Your task to perform on an android device: see sites visited before in the chrome app Image 0: 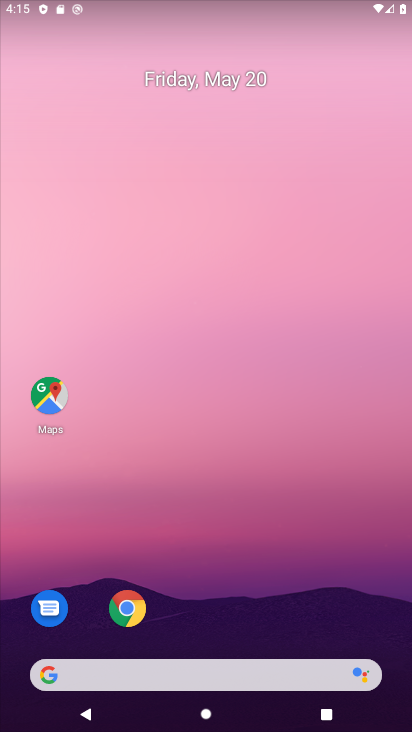
Step 0: click (126, 612)
Your task to perform on an android device: see sites visited before in the chrome app Image 1: 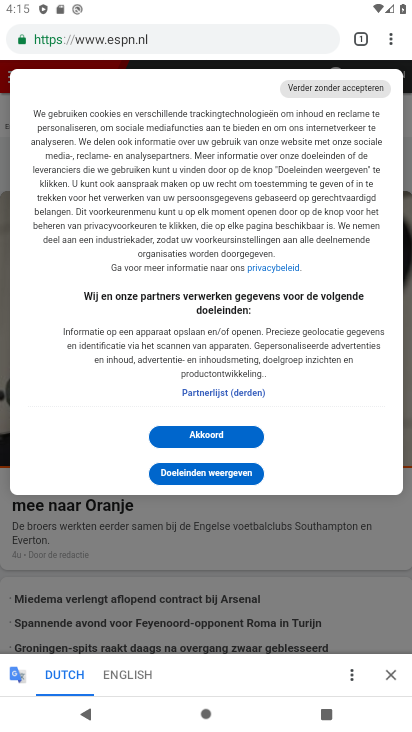
Step 1: click (192, 430)
Your task to perform on an android device: see sites visited before in the chrome app Image 2: 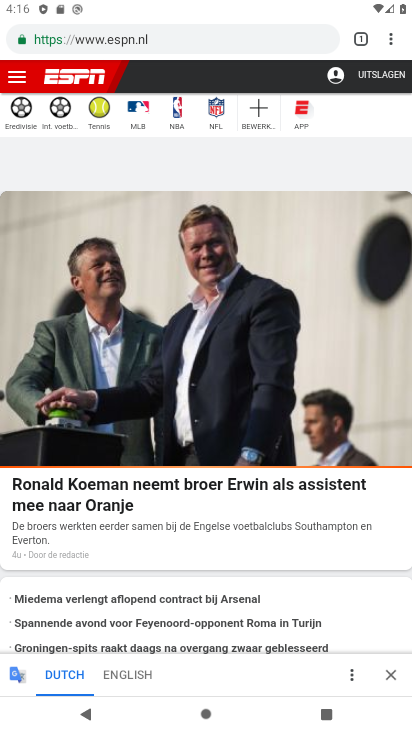
Step 2: click (394, 29)
Your task to perform on an android device: see sites visited before in the chrome app Image 3: 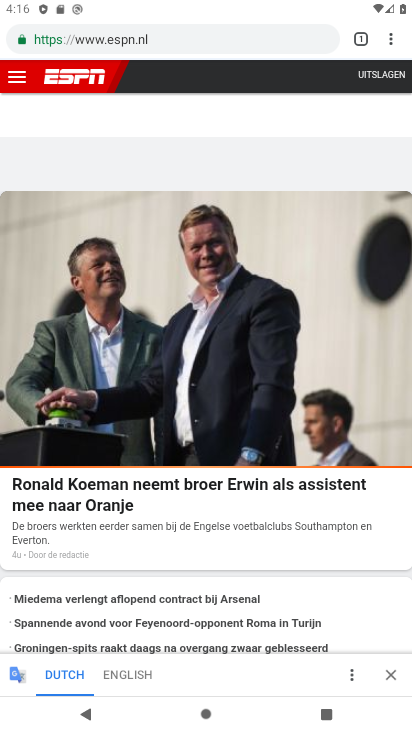
Step 3: task complete